Your task to perform on an android device: Open the stopwatch Image 0: 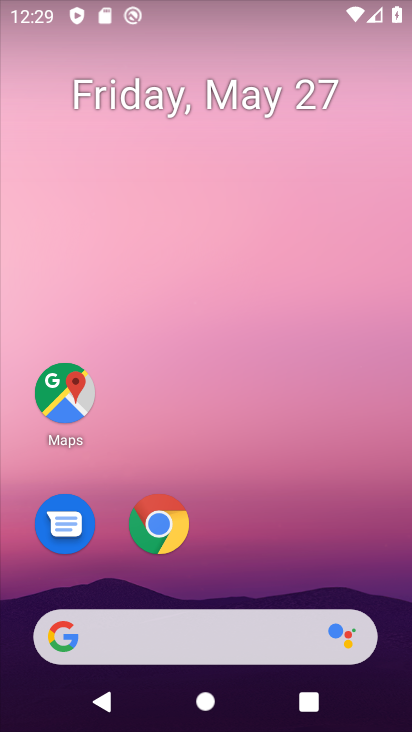
Step 0: drag from (277, 554) to (309, 14)
Your task to perform on an android device: Open the stopwatch Image 1: 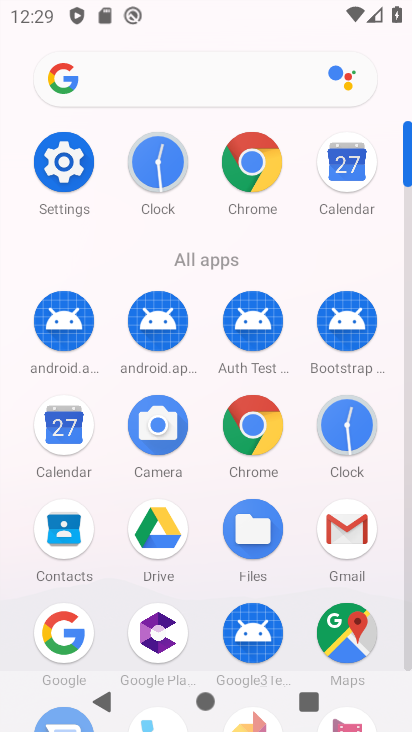
Step 1: click (161, 163)
Your task to perform on an android device: Open the stopwatch Image 2: 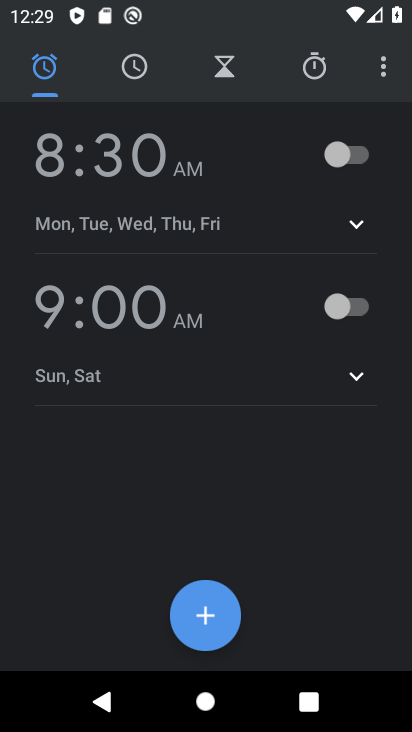
Step 2: click (316, 79)
Your task to perform on an android device: Open the stopwatch Image 3: 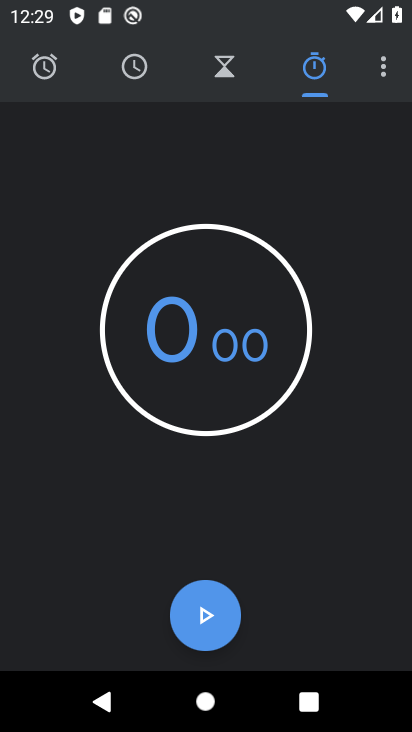
Step 3: task complete